Your task to perform on an android device: toggle improve location accuracy Image 0: 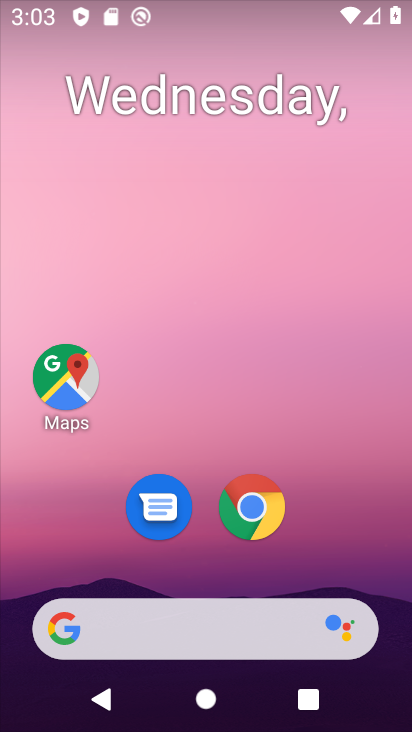
Step 0: drag from (235, 517) to (307, 133)
Your task to perform on an android device: toggle improve location accuracy Image 1: 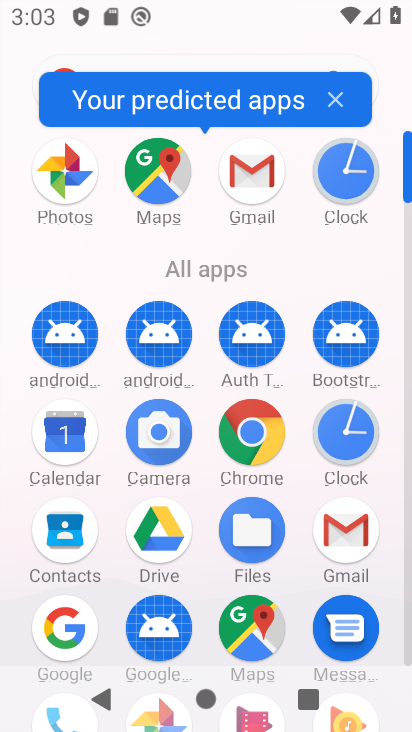
Step 1: drag from (204, 497) to (224, 68)
Your task to perform on an android device: toggle improve location accuracy Image 2: 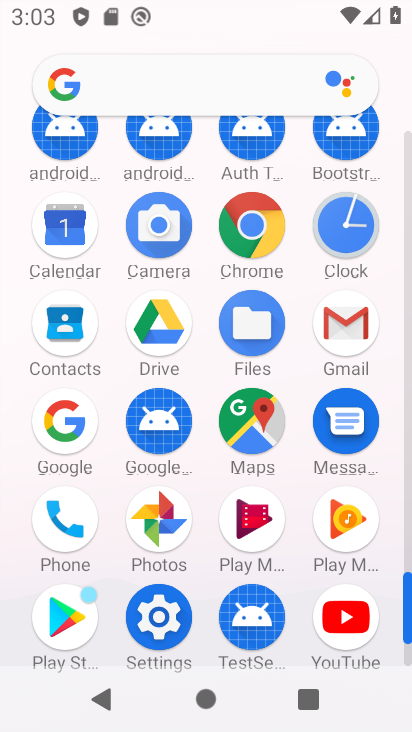
Step 2: drag from (251, 591) to (238, 159)
Your task to perform on an android device: toggle improve location accuracy Image 3: 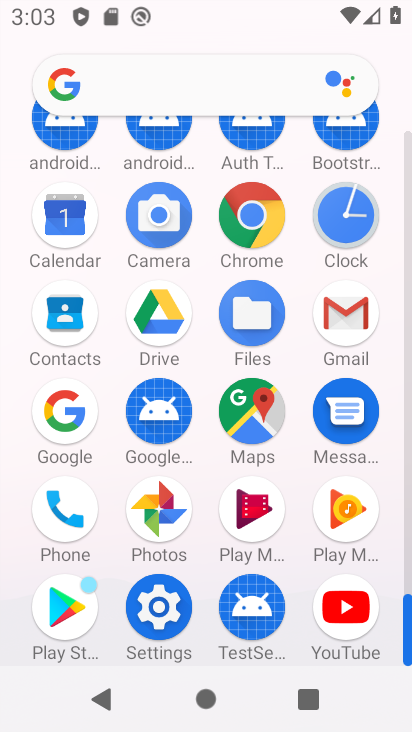
Step 3: click (159, 617)
Your task to perform on an android device: toggle improve location accuracy Image 4: 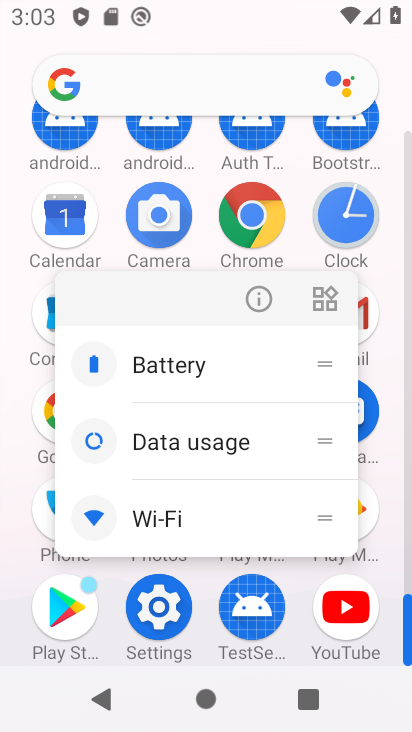
Step 4: click (159, 617)
Your task to perform on an android device: toggle improve location accuracy Image 5: 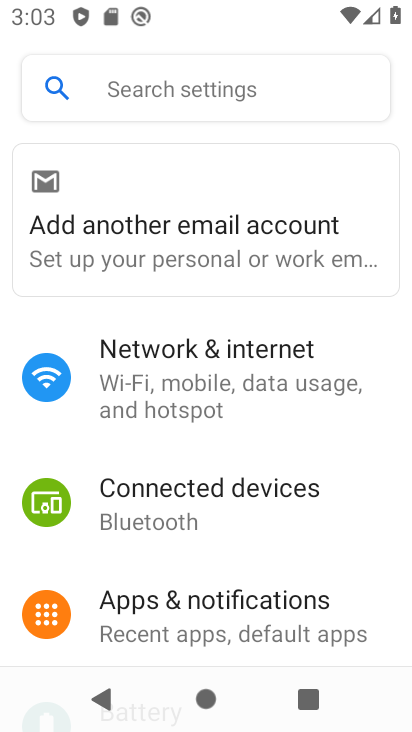
Step 5: drag from (263, 583) to (286, 157)
Your task to perform on an android device: toggle improve location accuracy Image 6: 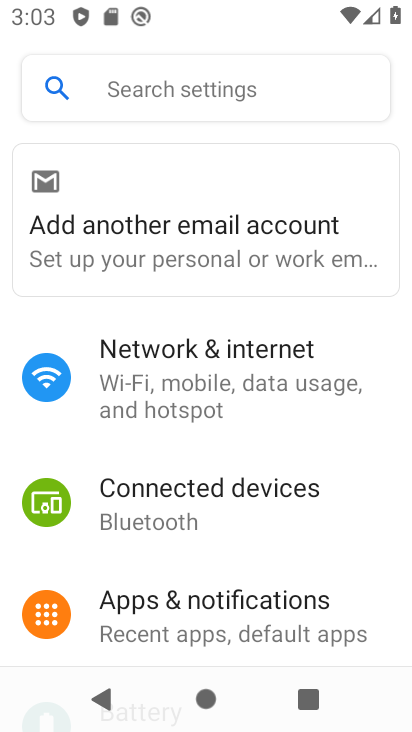
Step 6: drag from (314, 312) to (314, 174)
Your task to perform on an android device: toggle improve location accuracy Image 7: 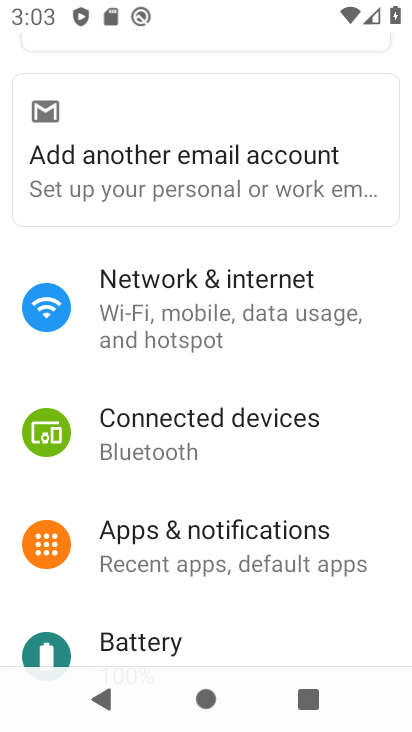
Step 7: drag from (195, 644) to (234, 265)
Your task to perform on an android device: toggle improve location accuracy Image 8: 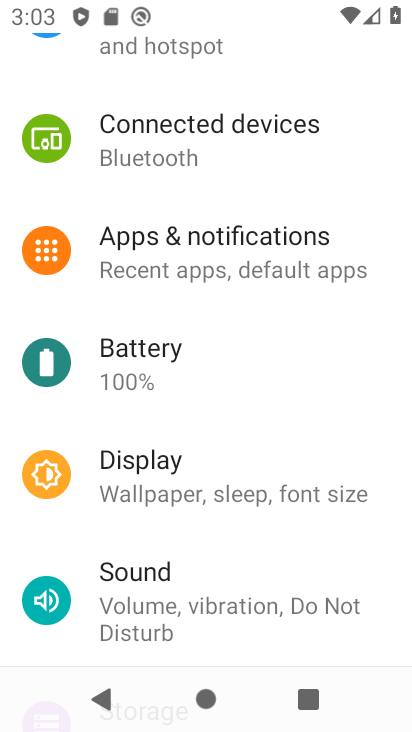
Step 8: drag from (247, 611) to (290, 272)
Your task to perform on an android device: toggle improve location accuracy Image 9: 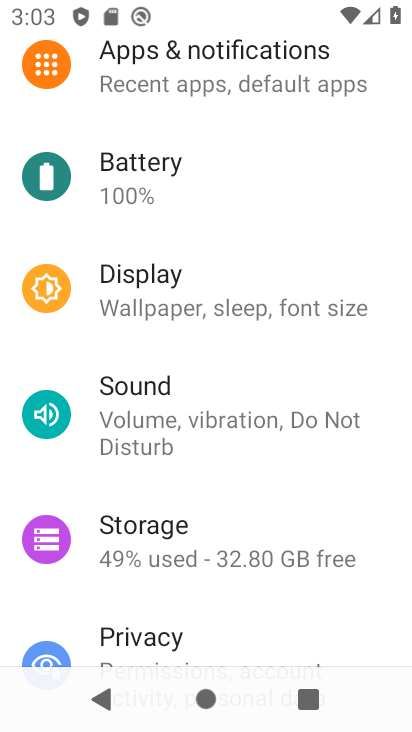
Step 9: drag from (216, 563) to (262, 289)
Your task to perform on an android device: toggle improve location accuracy Image 10: 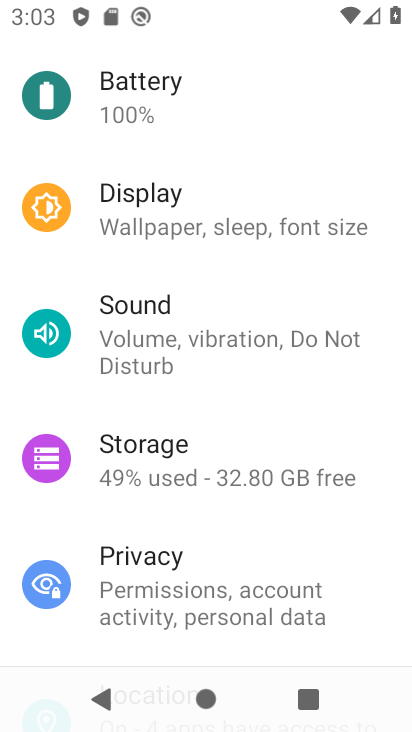
Step 10: drag from (288, 613) to (337, 209)
Your task to perform on an android device: toggle improve location accuracy Image 11: 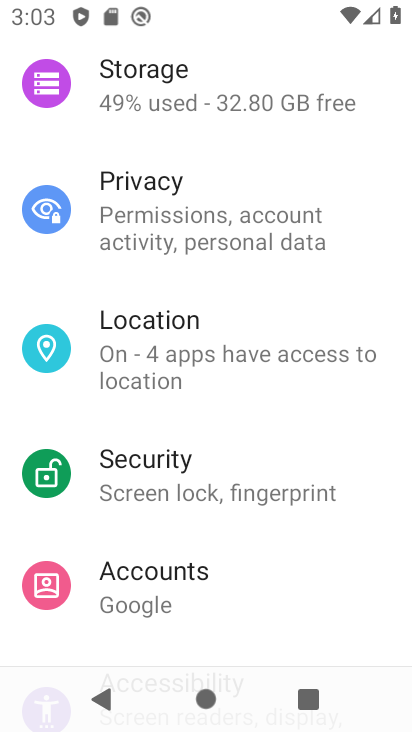
Step 11: drag from (263, 632) to (290, 254)
Your task to perform on an android device: toggle improve location accuracy Image 12: 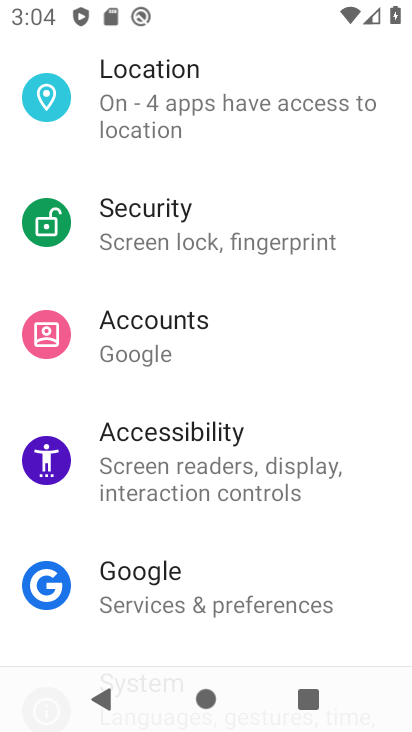
Step 12: click (188, 89)
Your task to perform on an android device: toggle improve location accuracy Image 13: 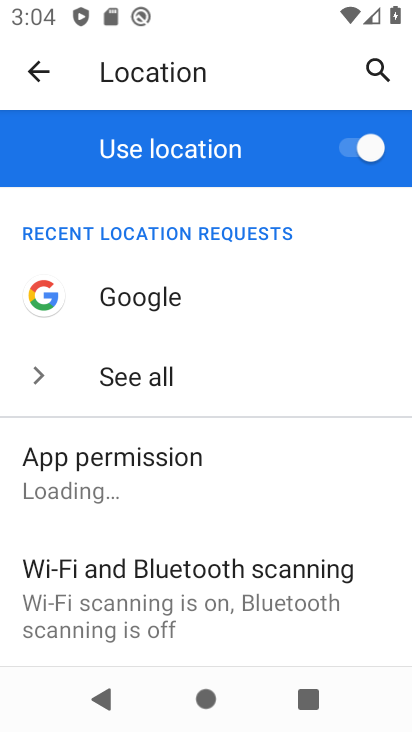
Step 13: drag from (167, 641) to (203, 351)
Your task to perform on an android device: toggle improve location accuracy Image 14: 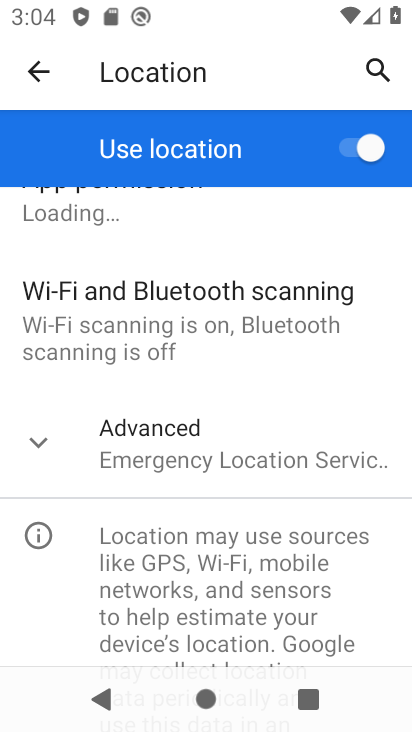
Step 14: click (95, 449)
Your task to perform on an android device: toggle improve location accuracy Image 15: 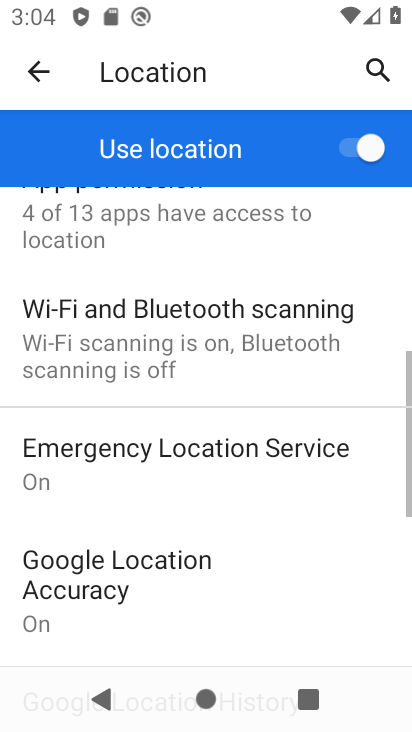
Step 15: click (130, 582)
Your task to perform on an android device: toggle improve location accuracy Image 16: 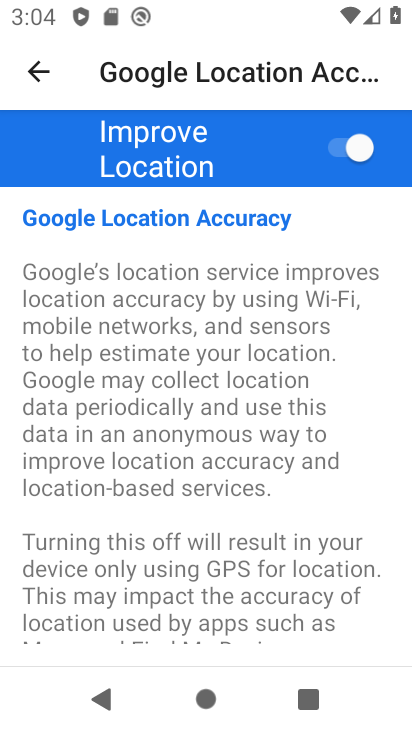
Step 16: click (338, 147)
Your task to perform on an android device: toggle improve location accuracy Image 17: 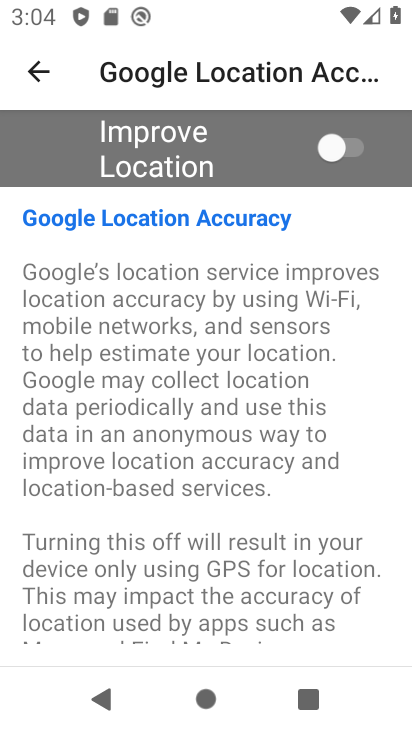
Step 17: task complete